Your task to perform on an android device: move a message to another label in the gmail app Image 0: 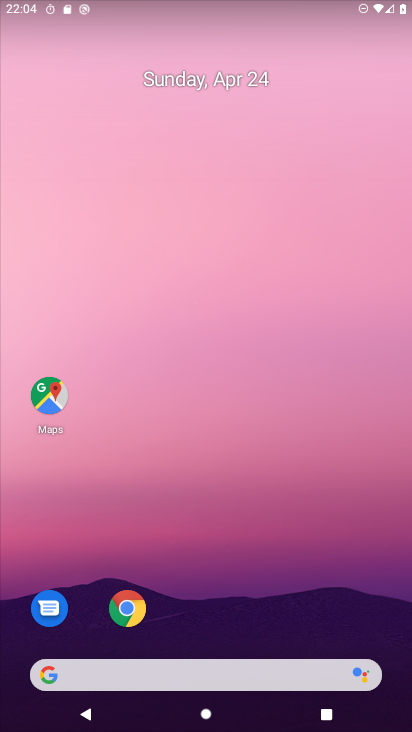
Step 0: drag from (323, 597) to (344, 54)
Your task to perform on an android device: move a message to another label in the gmail app Image 1: 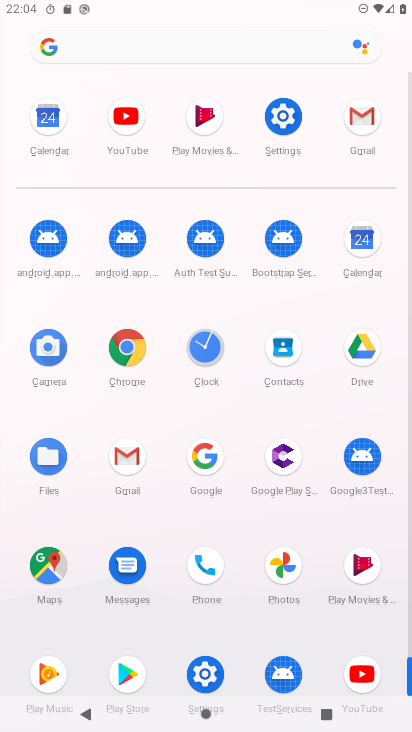
Step 1: click (360, 120)
Your task to perform on an android device: move a message to another label in the gmail app Image 2: 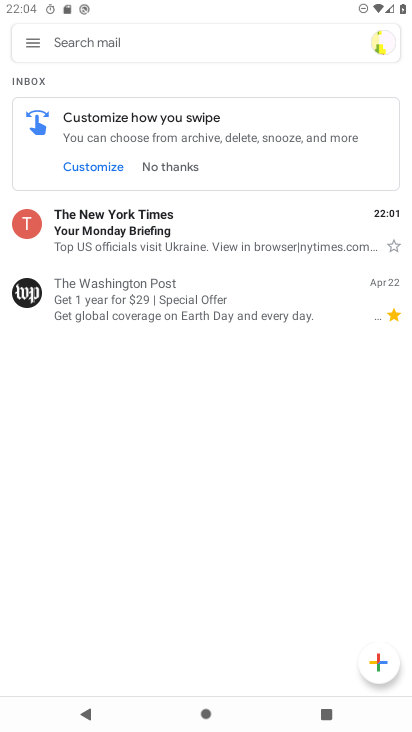
Step 2: click (173, 225)
Your task to perform on an android device: move a message to another label in the gmail app Image 3: 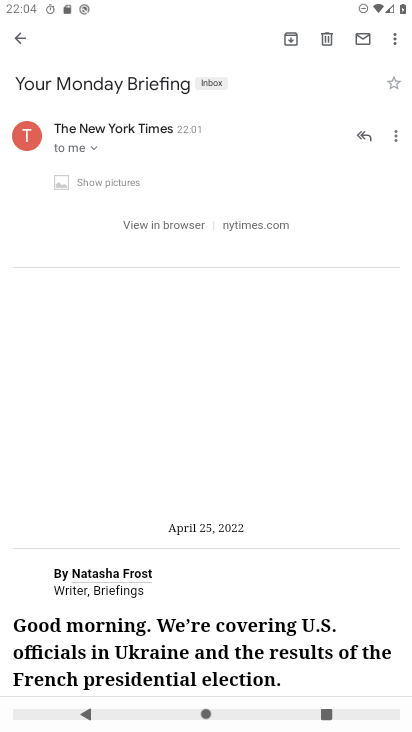
Step 3: click (396, 139)
Your task to perform on an android device: move a message to another label in the gmail app Image 4: 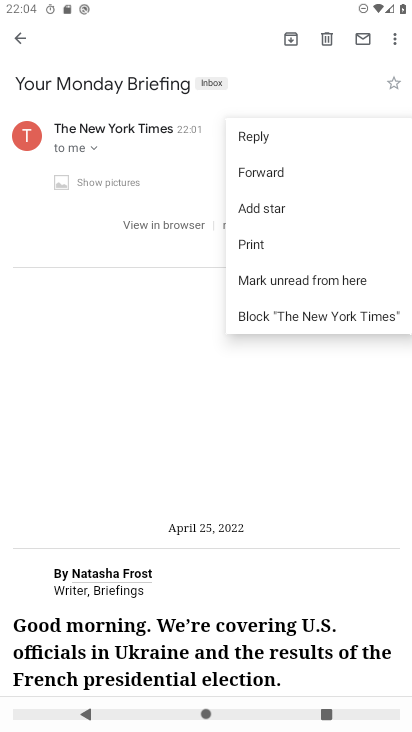
Step 4: click (311, 207)
Your task to perform on an android device: move a message to another label in the gmail app Image 5: 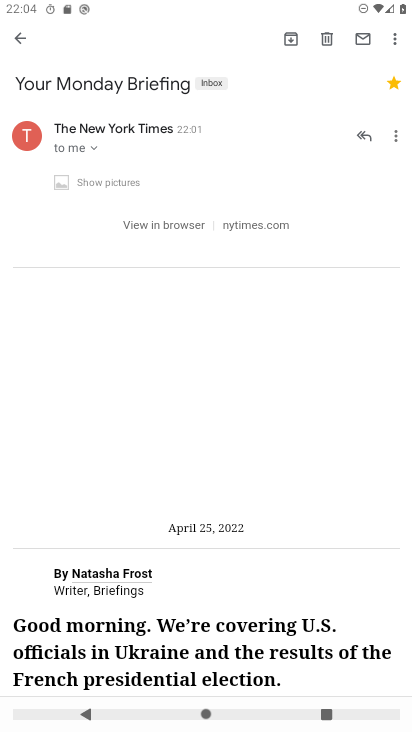
Step 5: task complete